Your task to perform on an android device: turn on data saver in the chrome app Image 0: 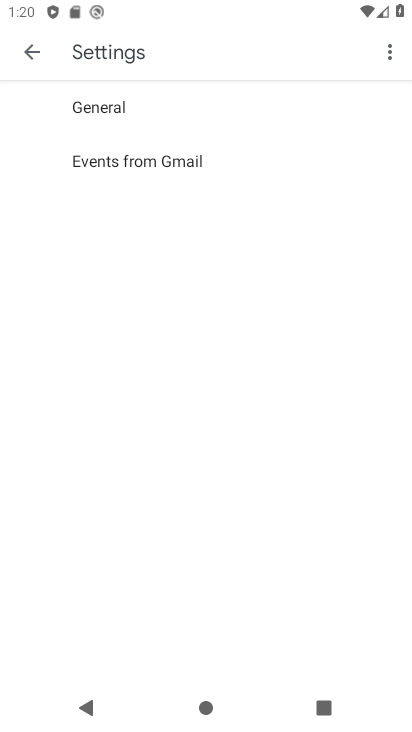
Step 0: press home button
Your task to perform on an android device: turn on data saver in the chrome app Image 1: 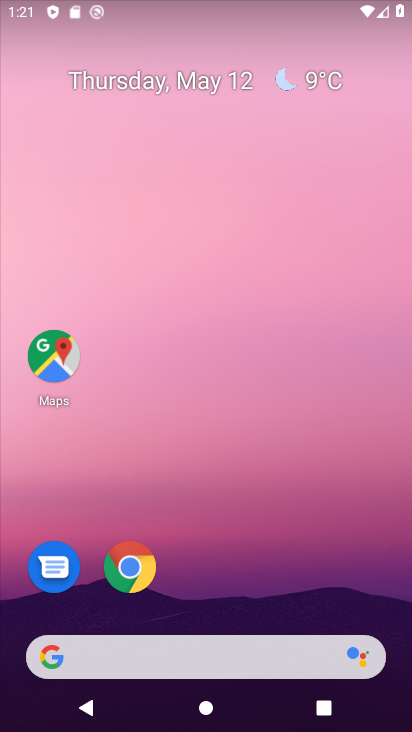
Step 1: drag from (254, 576) to (249, 185)
Your task to perform on an android device: turn on data saver in the chrome app Image 2: 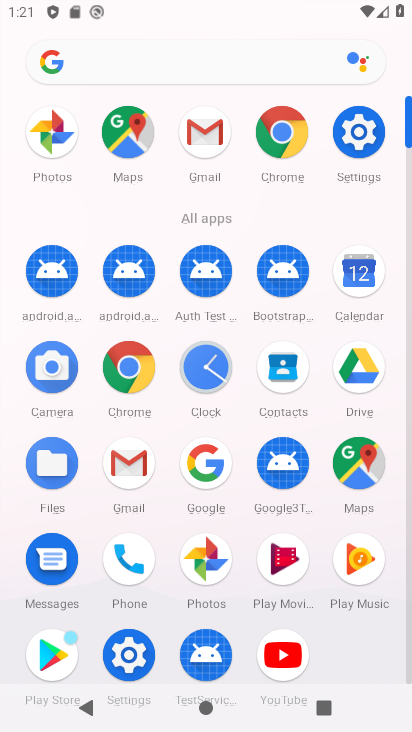
Step 2: click (274, 166)
Your task to perform on an android device: turn on data saver in the chrome app Image 3: 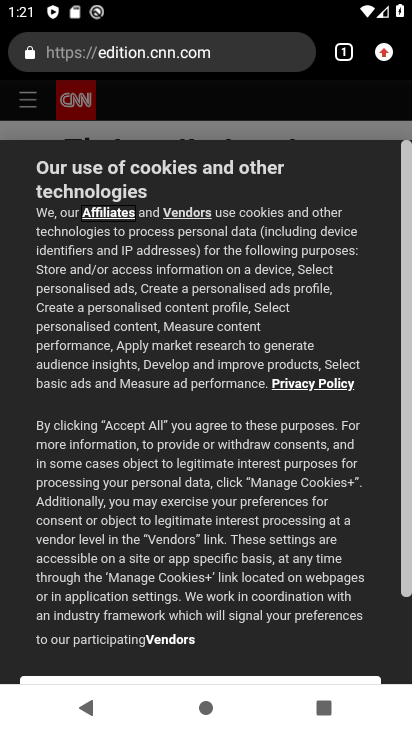
Step 3: click (383, 54)
Your task to perform on an android device: turn on data saver in the chrome app Image 4: 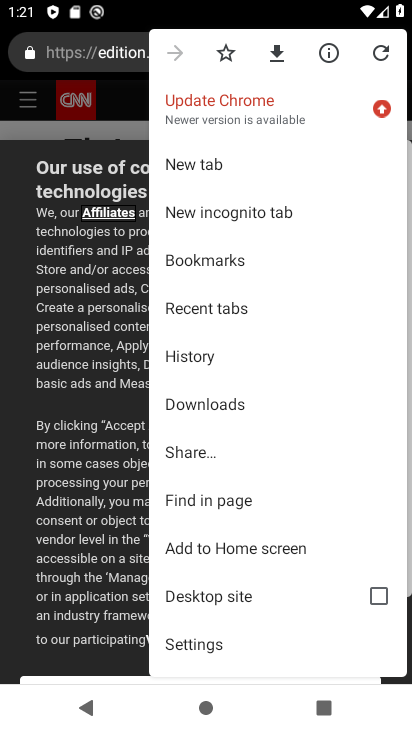
Step 4: click (193, 655)
Your task to perform on an android device: turn on data saver in the chrome app Image 5: 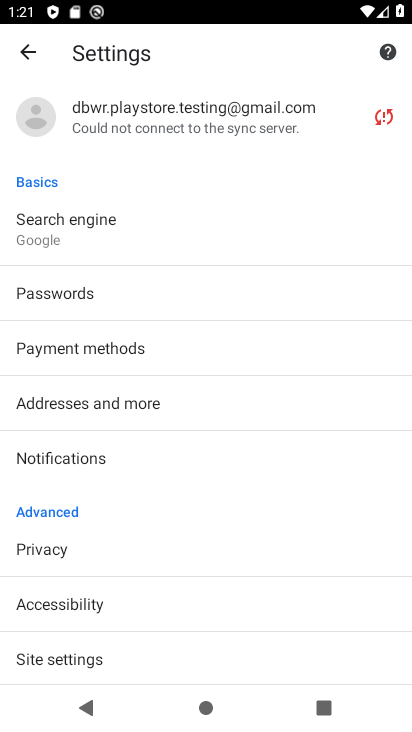
Step 5: click (142, 375)
Your task to perform on an android device: turn on data saver in the chrome app Image 6: 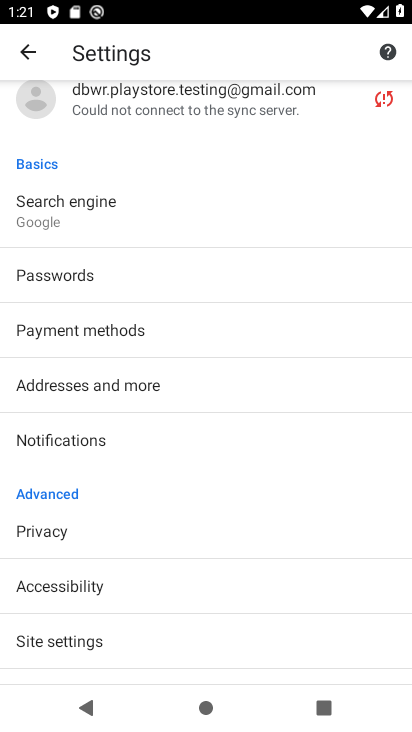
Step 6: drag from (96, 625) to (114, 386)
Your task to perform on an android device: turn on data saver in the chrome app Image 7: 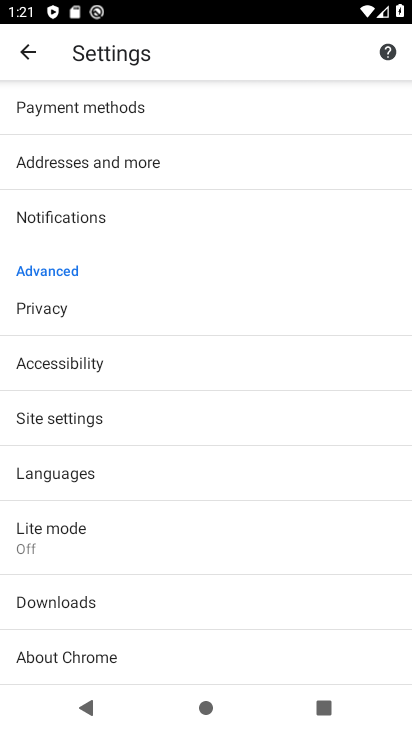
Step 7: click (64, 545)
Your task to perform on an android device: turn on data saver in the chrome app Image 8: 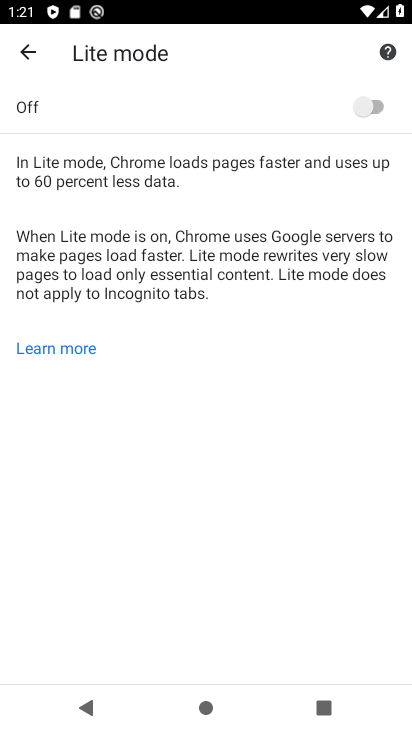
Step 8: click (382, 99)
Your task to perform on an android device: turn on data saver in the chrome app Image 9: 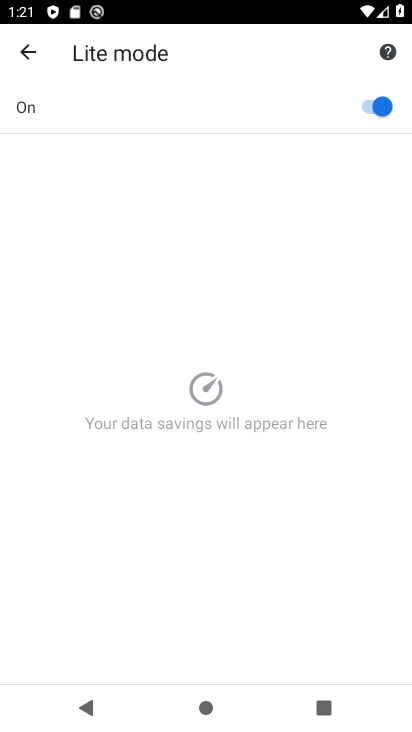
Step 9: task complete